Your task to perform on an android device: Go to CNN.com Image 0: 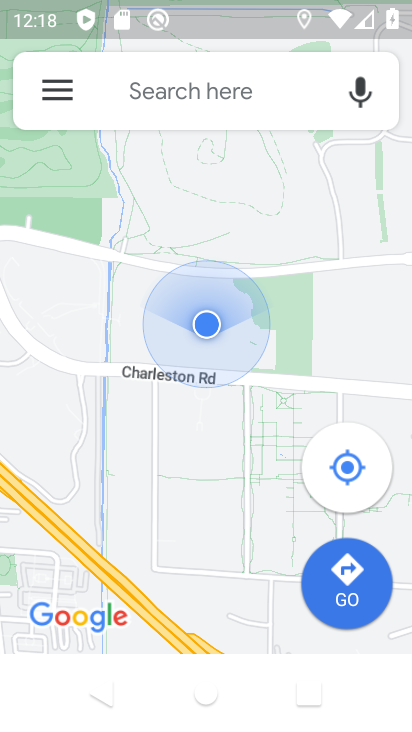
Step 0: press home button
Your task to perform on an android device: Go to CNN.com Image 1: 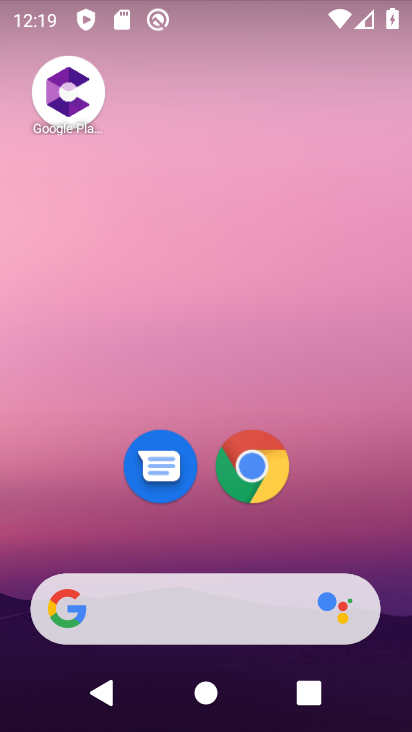
Step 1: click (273, 477)
Your task to perform on an android device: Go to CNN.com Image 2: 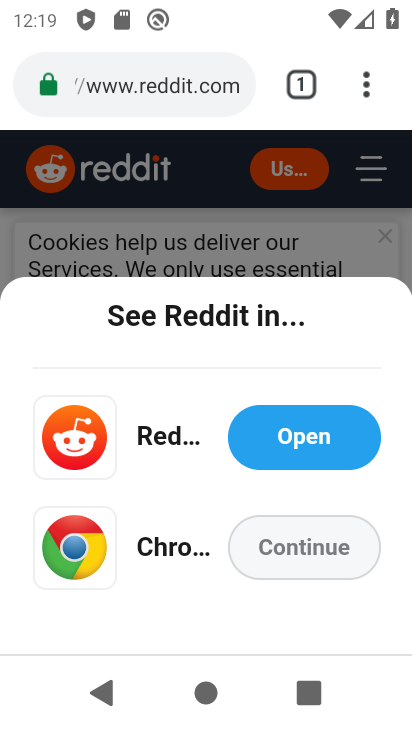
Step 2: click (224, 127)
Your task to perform on an android device: Go to CNN.com Image 3: 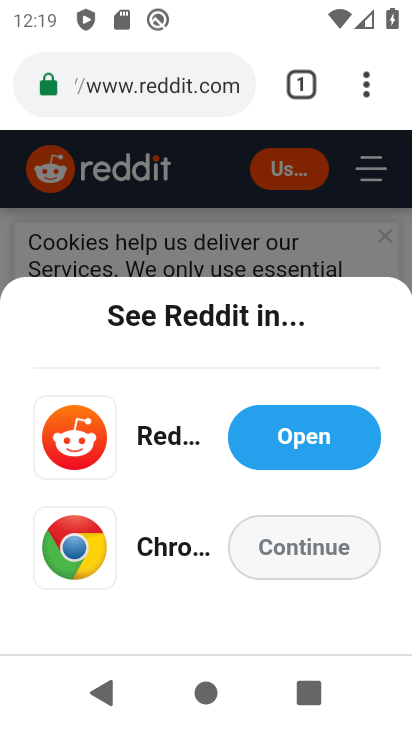
Step 3: click (205, 92)
Your task to perform on an android device: Go to CNN.com Image 4: 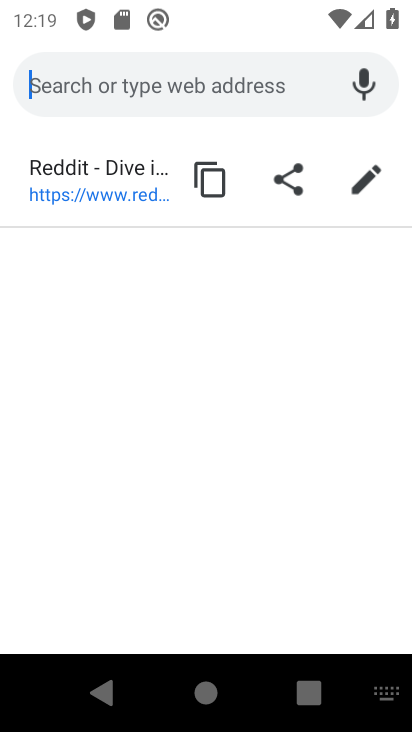
Step 4: type "cnn.com"
Your task to perform on an android device: Go to CNN.com Image 5: 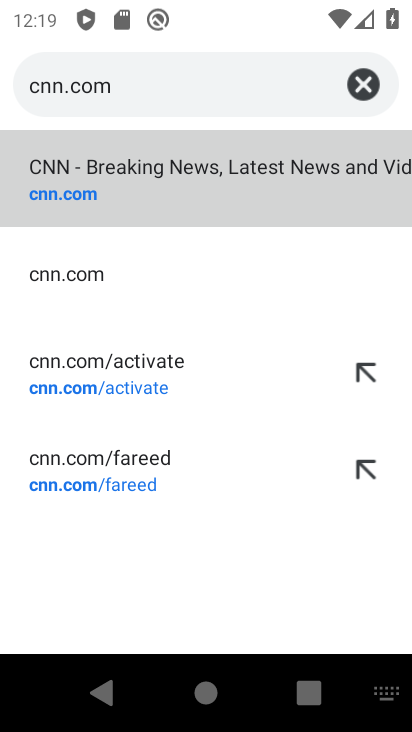
Step 5: click (255, 196)
Your task to perform on an android device: Go to CNN.com Image 6: 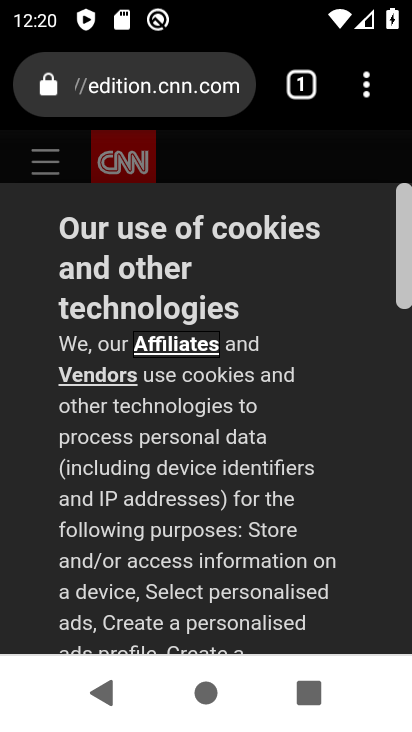
Step 6: task complete